Your task to perform on an android device: Open notification settings Image 0: 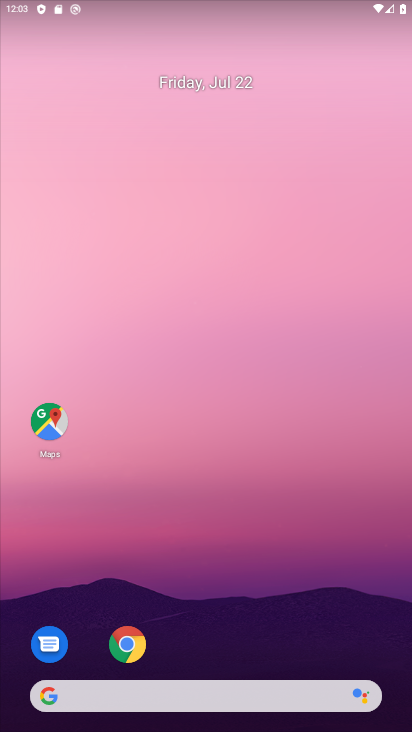
Step 0: drag from (314, 675) to (297, 94)
Your task to perform on an android device: Open notification settings Image 1: 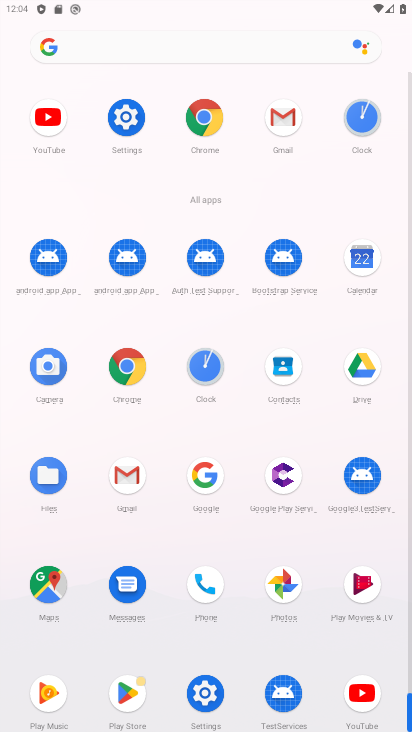
Step 1: click (135, 139)
Your task to perform on an android device: Open notification settings Image 2: 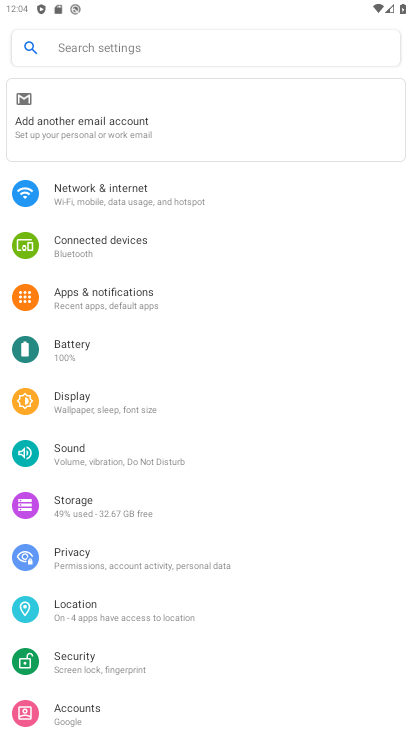
Step 2: click (153, 304)
Your task to perform on an android device: Open notification settings Image 3: 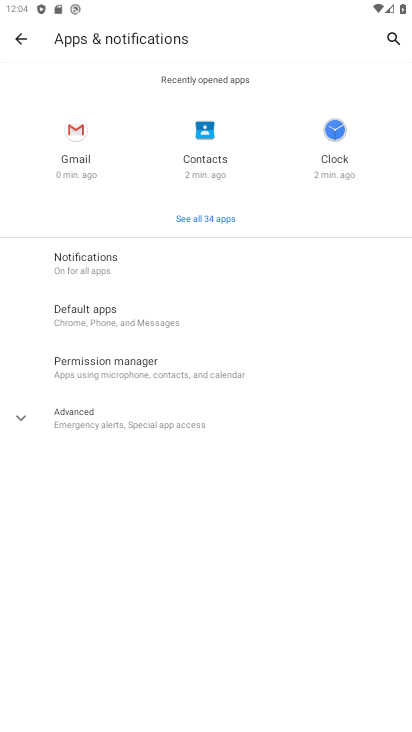
Step 3: click (76, 265)
Your task to perform on an android device: Open notification settings Image 4: 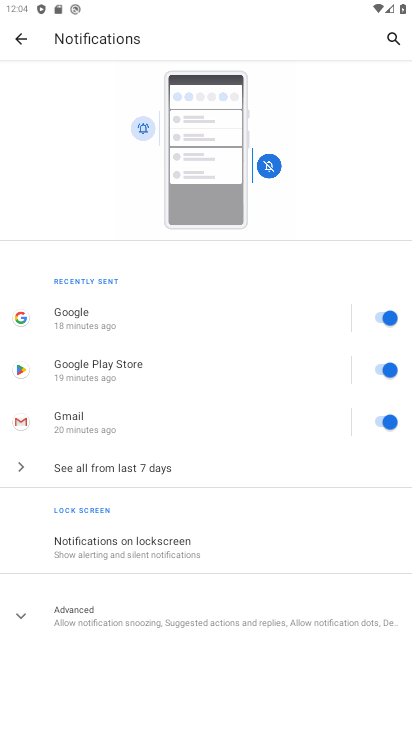
Step 4: task complete